Your task to perform on an android device: Search for top rated seafood restaurants on Google Maps Image 0: 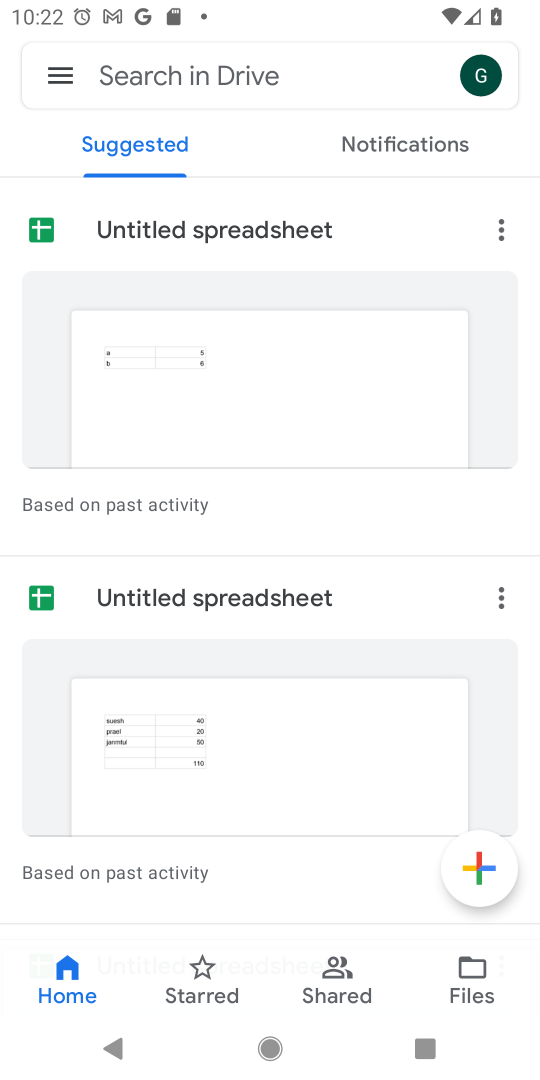
Step 0: press home button
Your task to perform on an android device: Search for top rated seafood restaurants on Google Maps Image 1: 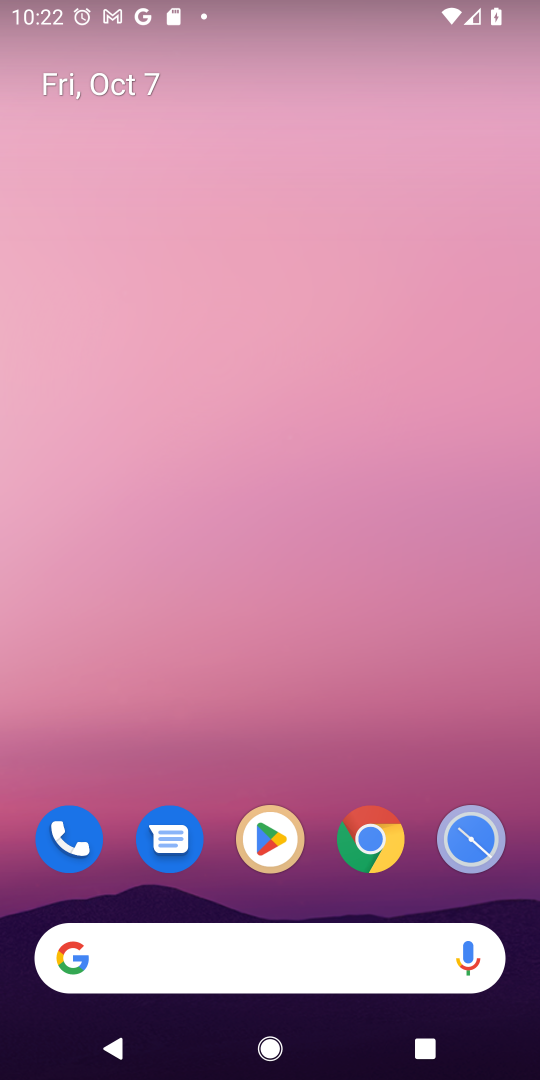
Step 1: click (368, 846)
Your task to perform on an android device: Search for top rated seafood restaurants on Google Maps Image 2: 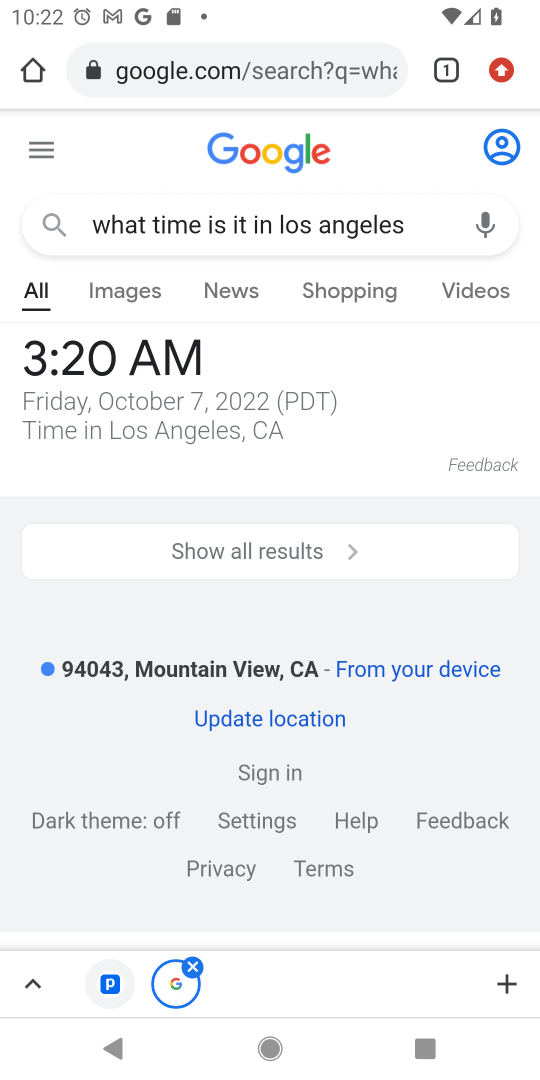
Step 2: click (325, 220)
Your task to perform on an android device: Search for top rated seafood restaurants on Google Maps Image 3: 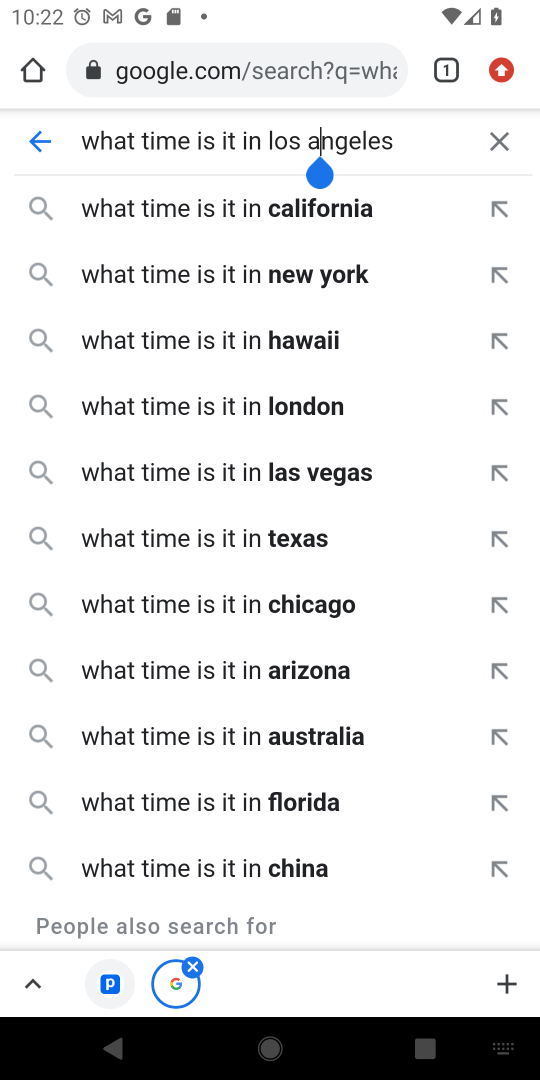
Step 3: click (492, 142)
Your task to perform on an android device: Search for top rated seafood restaurants on Google Maps Image 4: 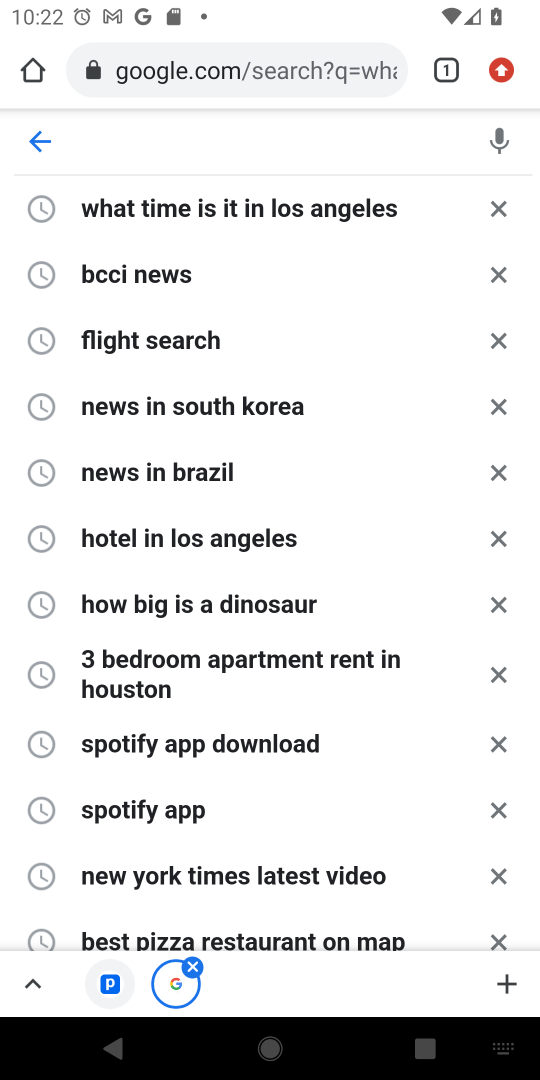
Step 4: type "top rated sea food resturant "
Your task to perform on an android device: Search for top rated seafood restaurants on Google Maps Image 5: 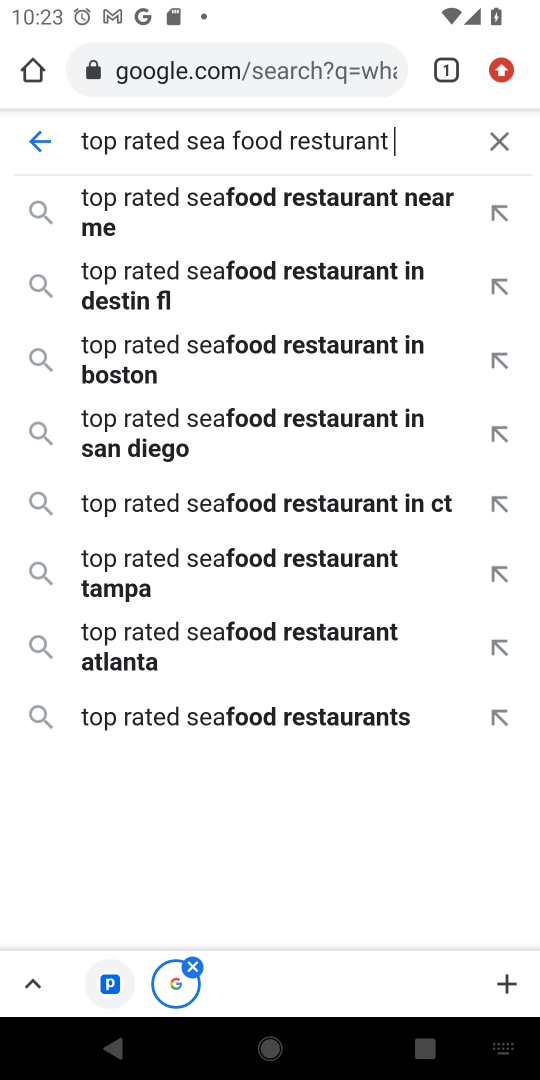
Step 5: click (98, 192)
Your task to perform on an android device: Search for top rated seafood restaurants on Google Maps Image 6: 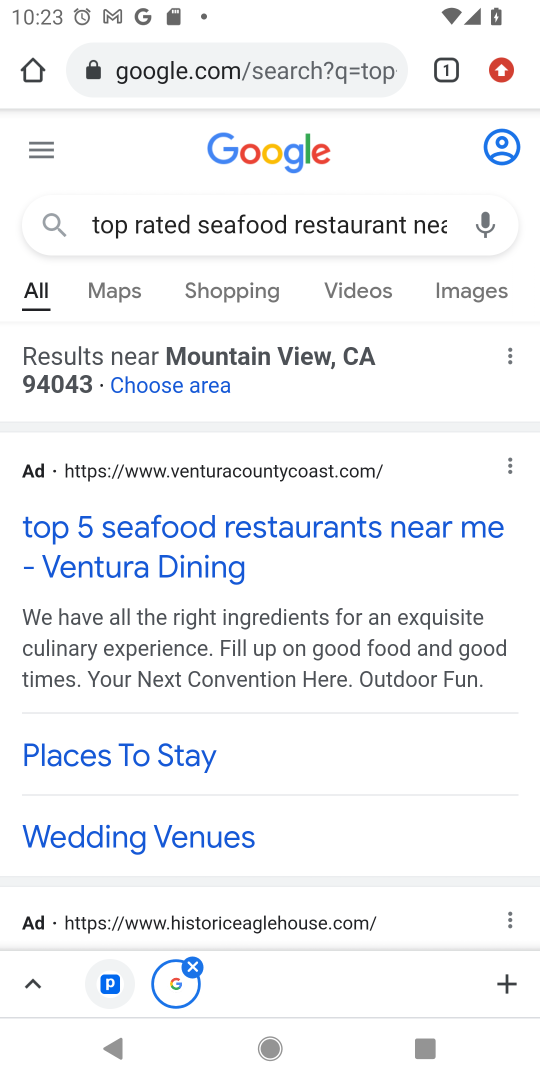
Step 6: click (111, 292)
Your task to perform on an android device: Search for top rated seafood restaurants on Google Maps Image 7: 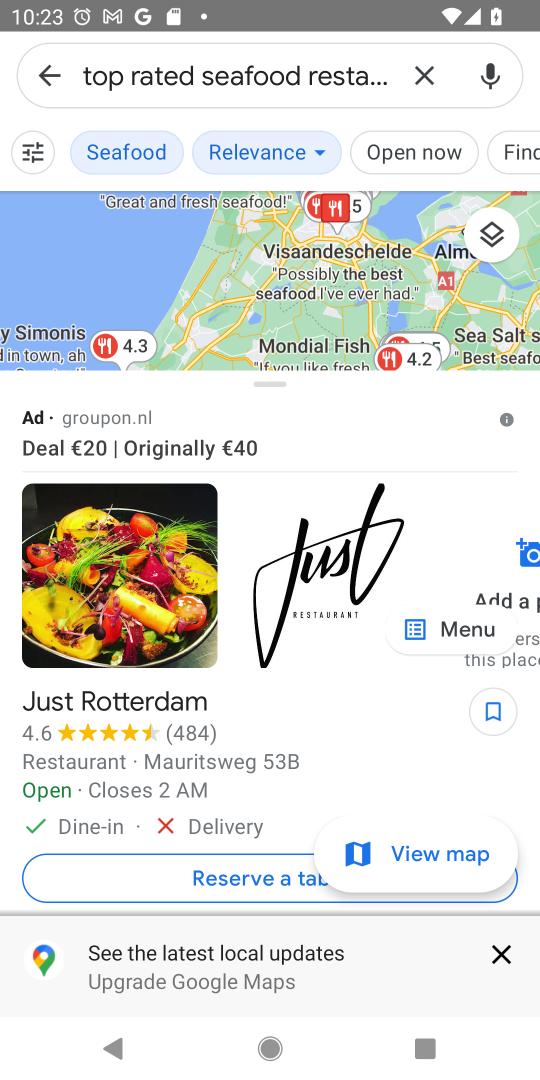
Step 7: click (228, 262)
Your task to perform on an android device: Search for top rated seafood restaurants on Google Maps Image 8: 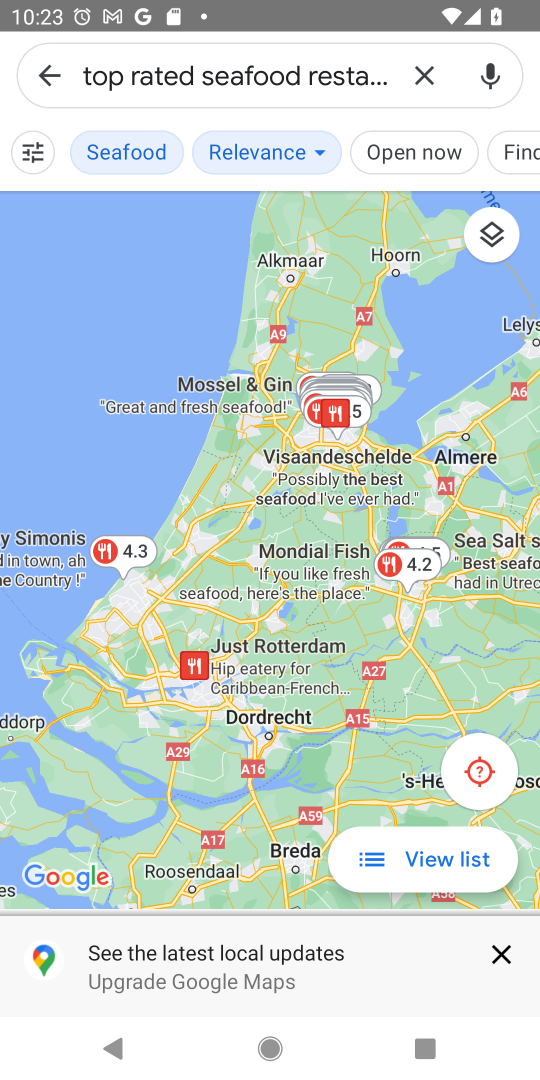
Step 8: task complete